Your task to perform on an android device: check battery use Image 0: 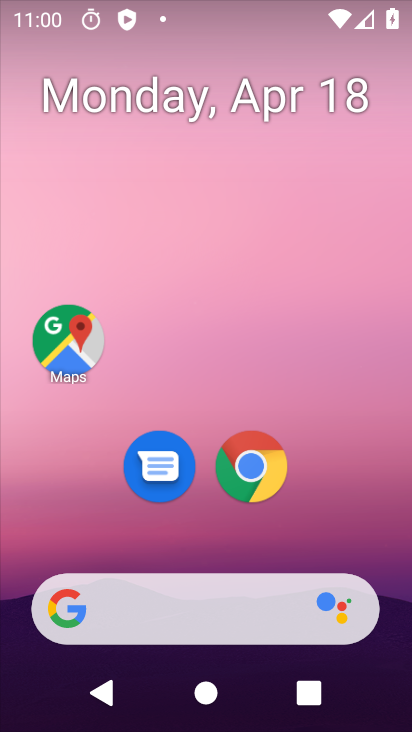
Step 0: drag from (231, 549) to (208, 96)
Your task to perform on an android device: check battery use Image 1: 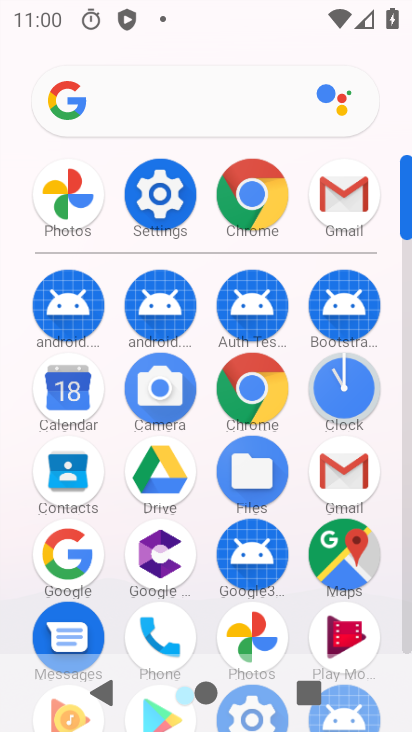
Step 1: click (171, 215)
Your task to perform on an android device: check battery use Image 2: 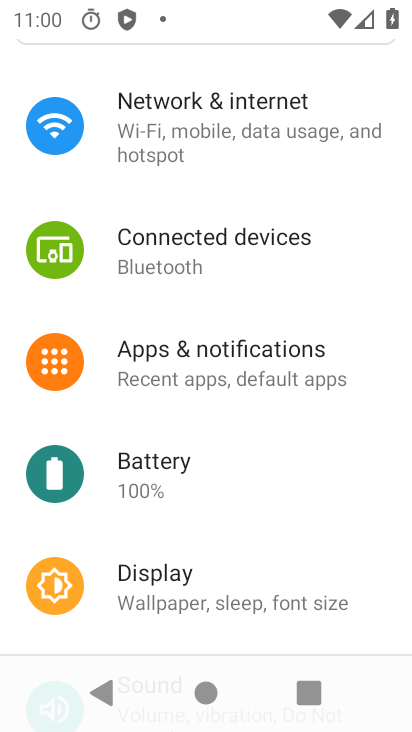
Step 2: click (217, 476)
Your task to perform on an android device: check battery use Image 3: 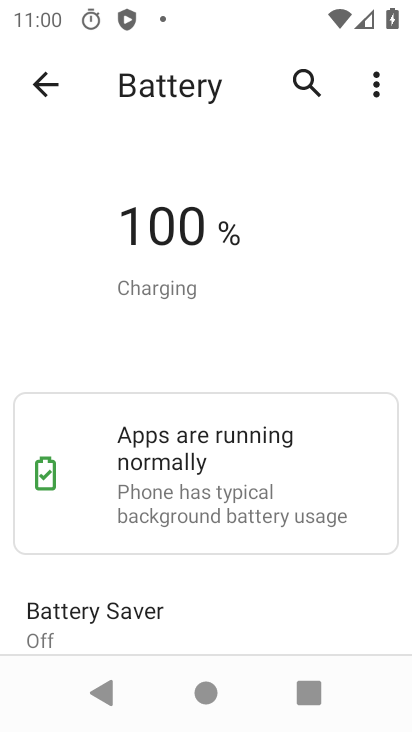
Step 3: task complete